Your task to perform on an android device: Searchfor good French restaurants Image 0: 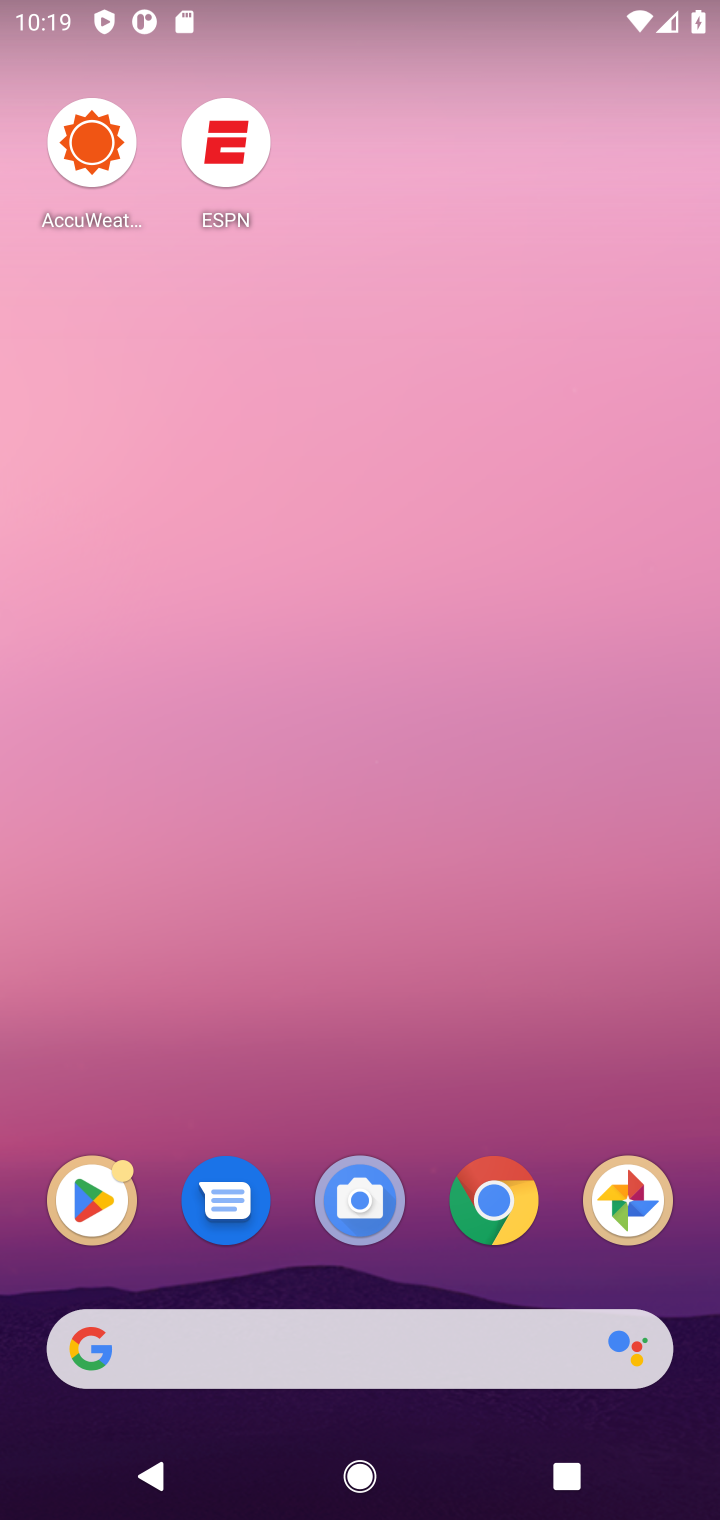
Step 0: click (455, 1215)
Your task to perform on an android device: Searchfor good French restaurants Image 1: 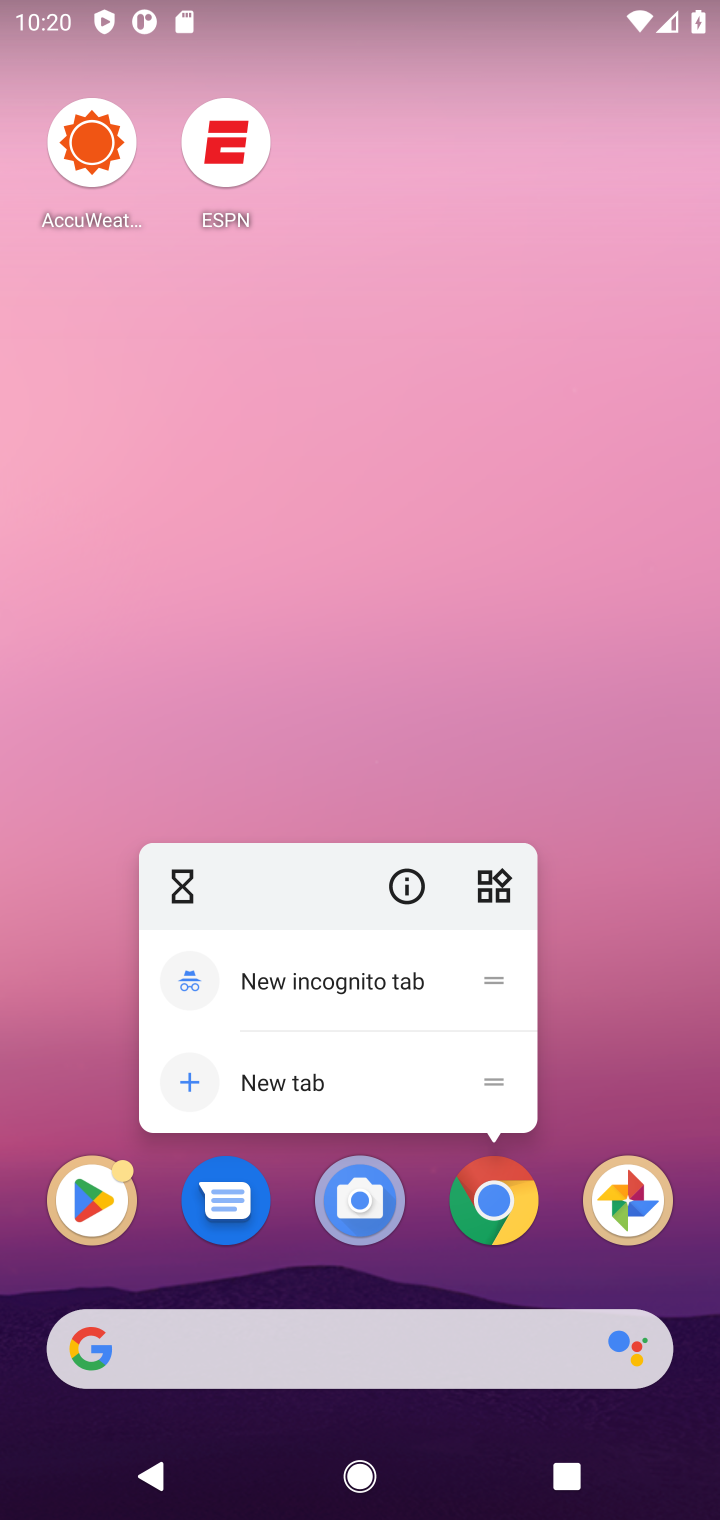
Step 1: click (483, 1191)
Your task to perform on an android device: Searchfor good French restaurants Image 2: 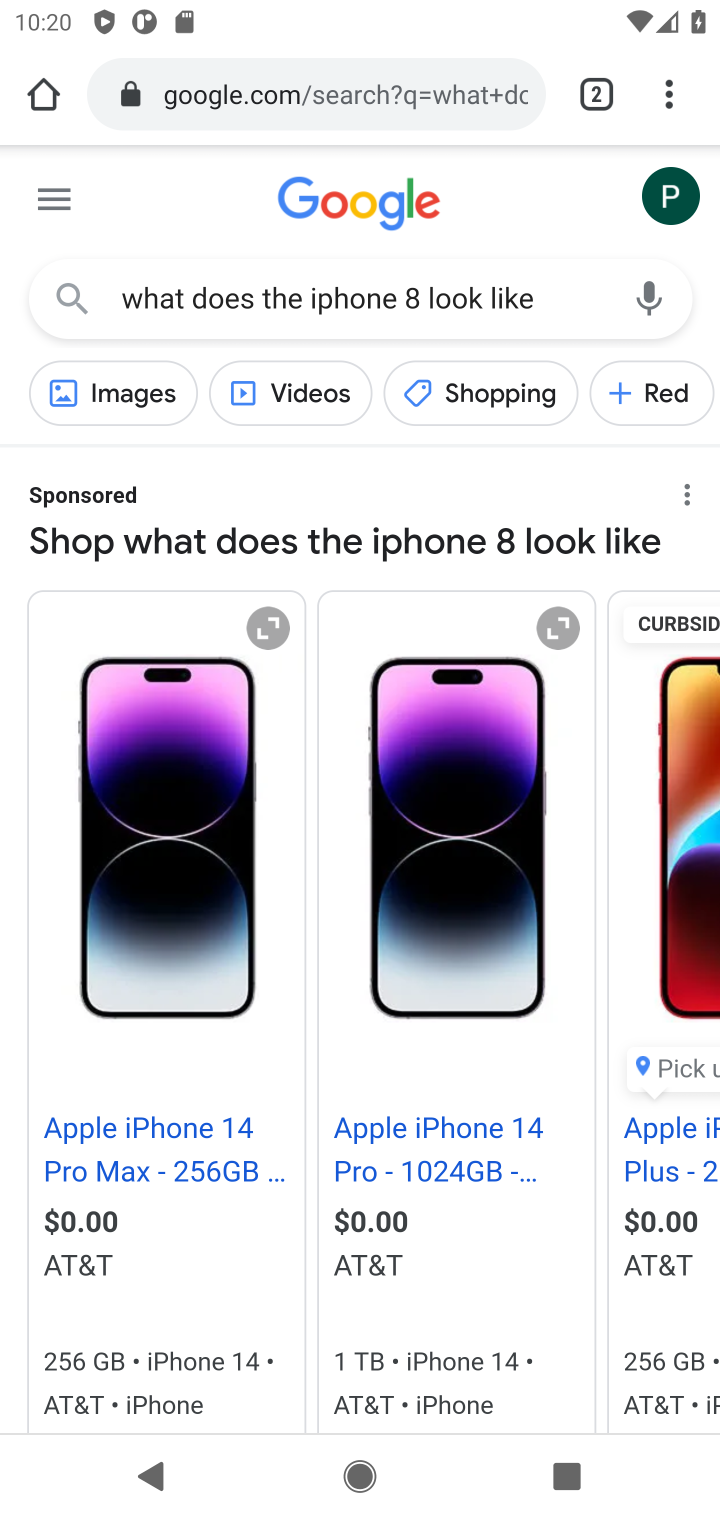
Step 2: click (455, 320)
Your task to perform on an android device: Searchfor good French restaurants Image 3: 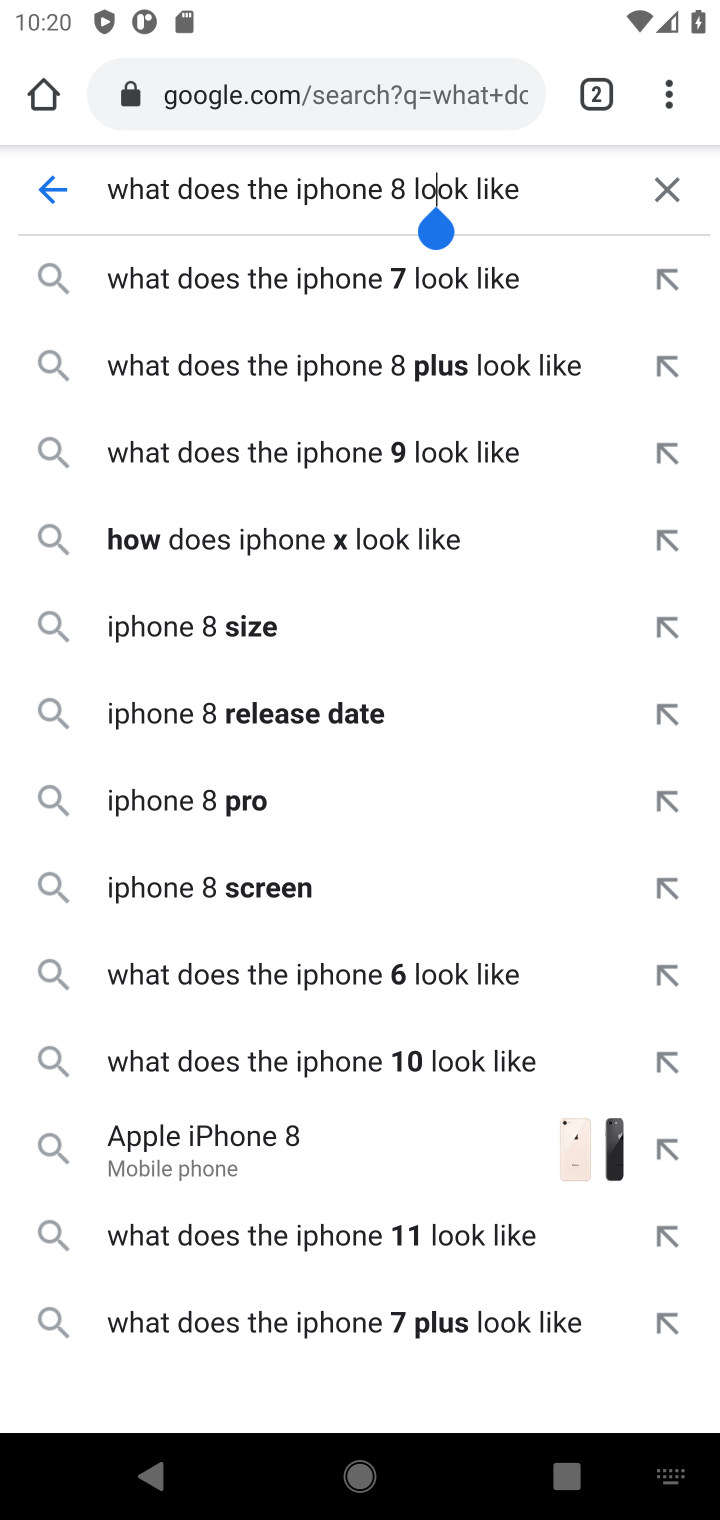
Step 3: click (664, 187)
Your task to perform on an android device: Searchfor good French restaurants Image 4: 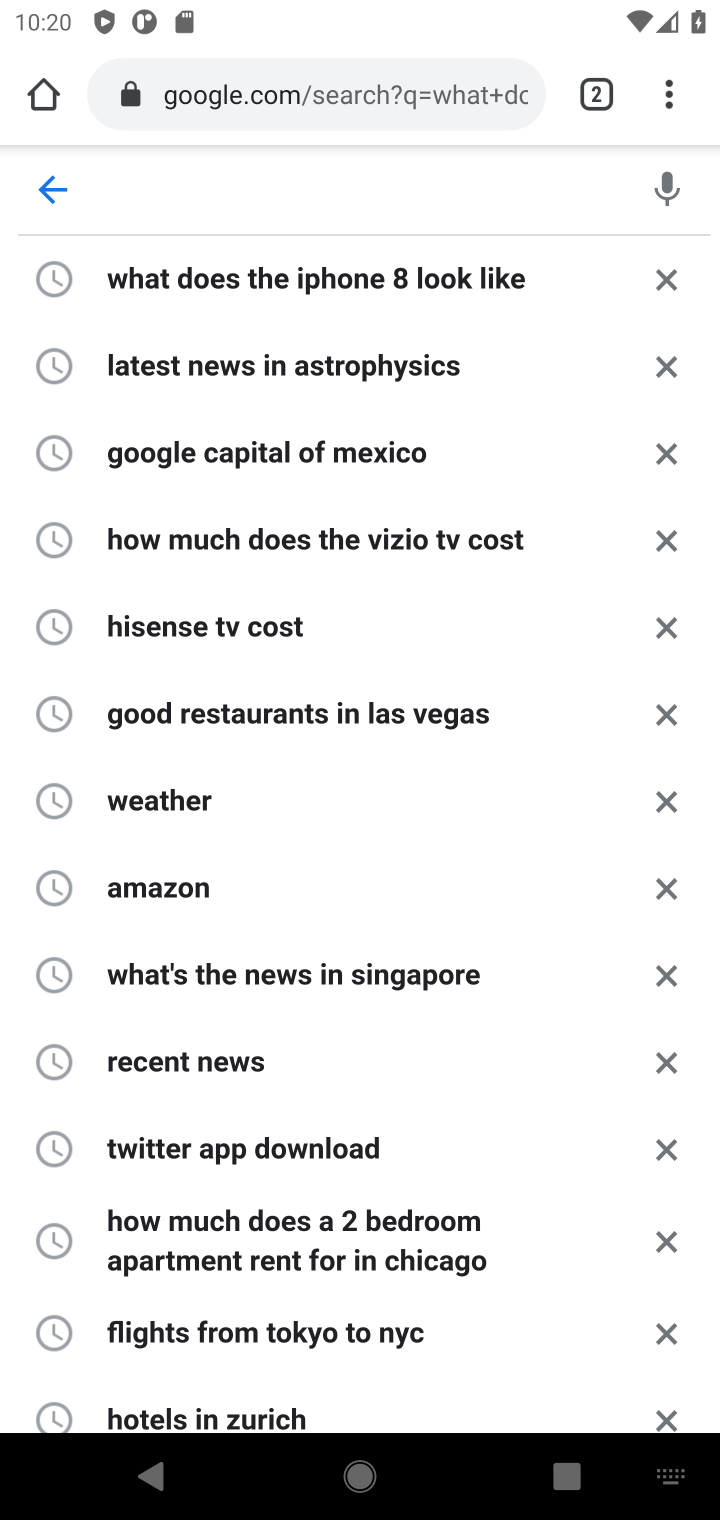
Step 4: click (336, 194)
Your task to perform on an android device: Searchfor good French restaurants Image 5: 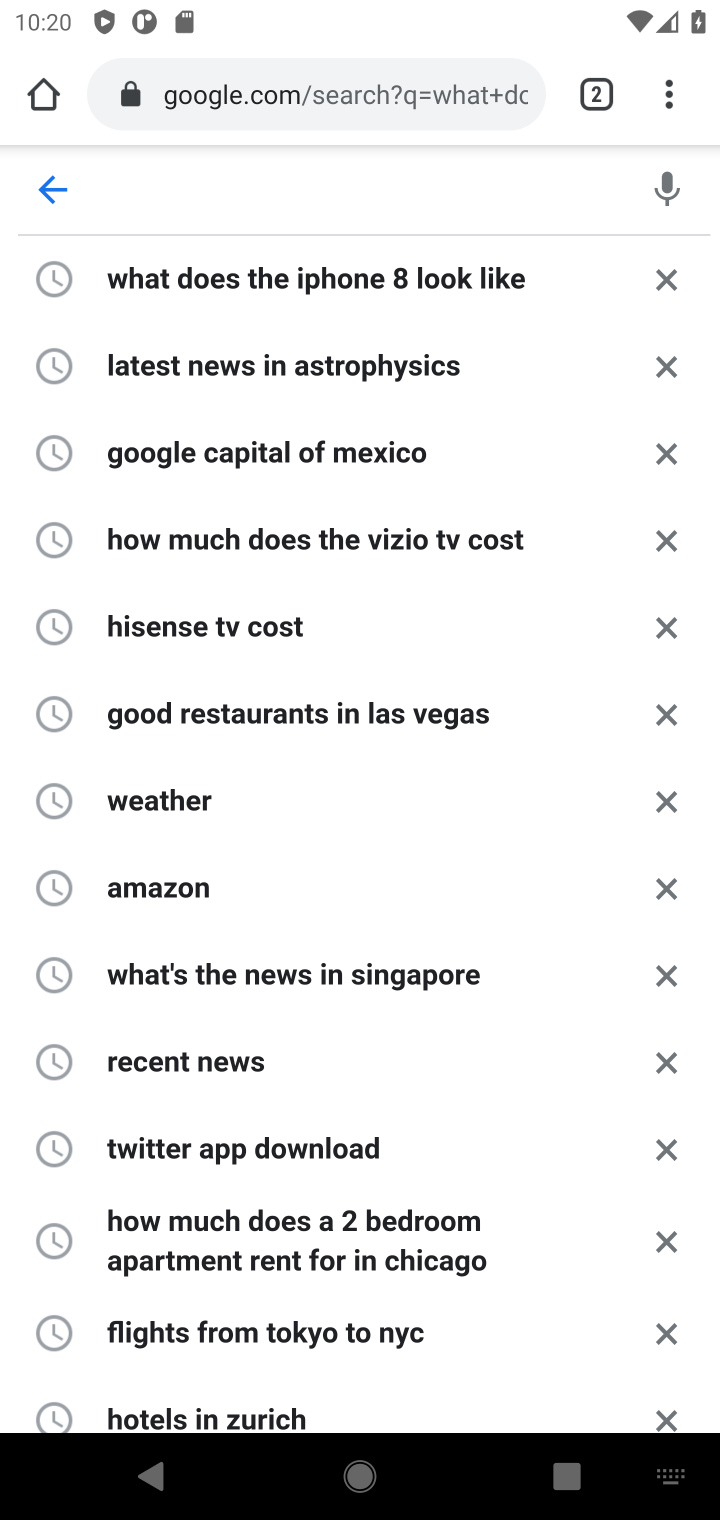
Step 5: type "good french restuarants"
Your task to perform on an android device: Searchfor good French restaurants Image 6: 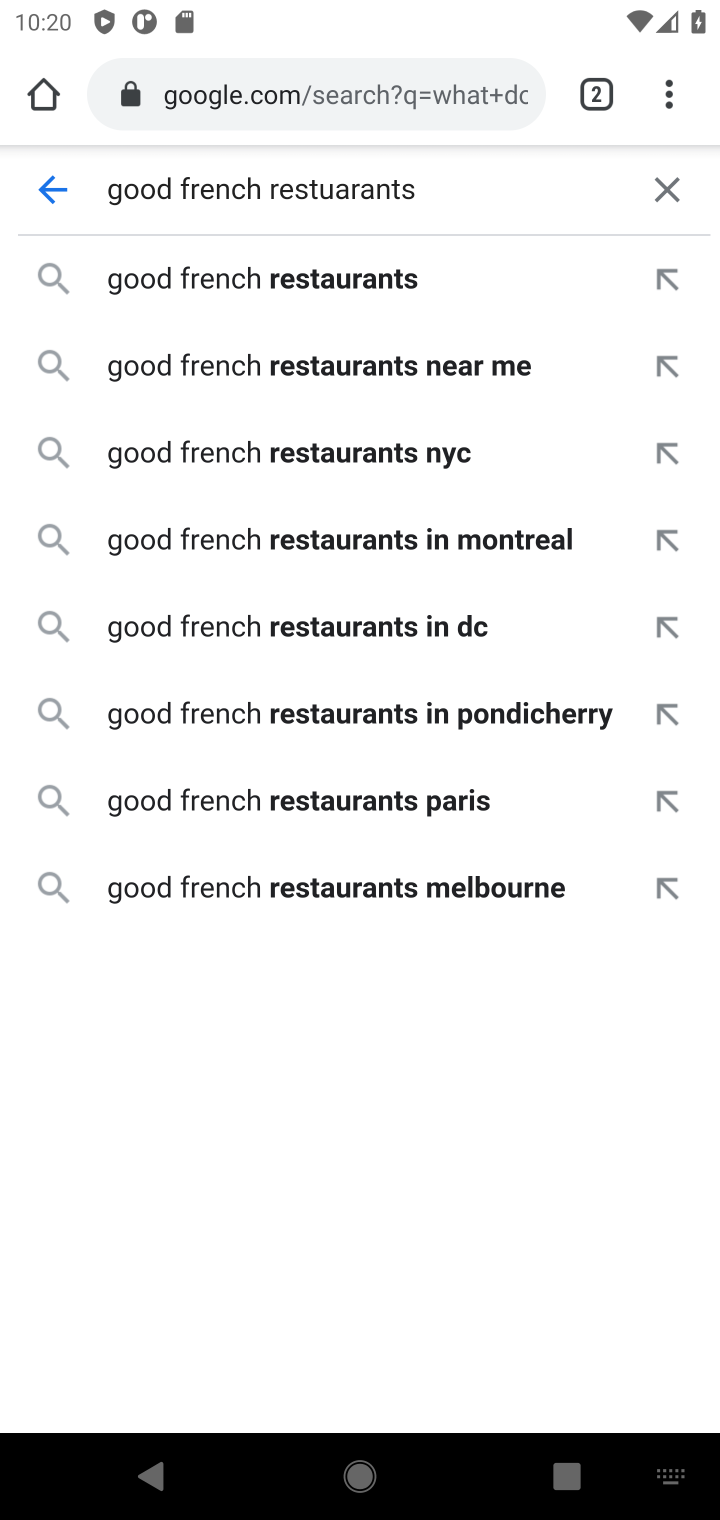
Step 6: click (480, 254)
Your task to perform on an android device: Searchfor good French restaurants Image 7: 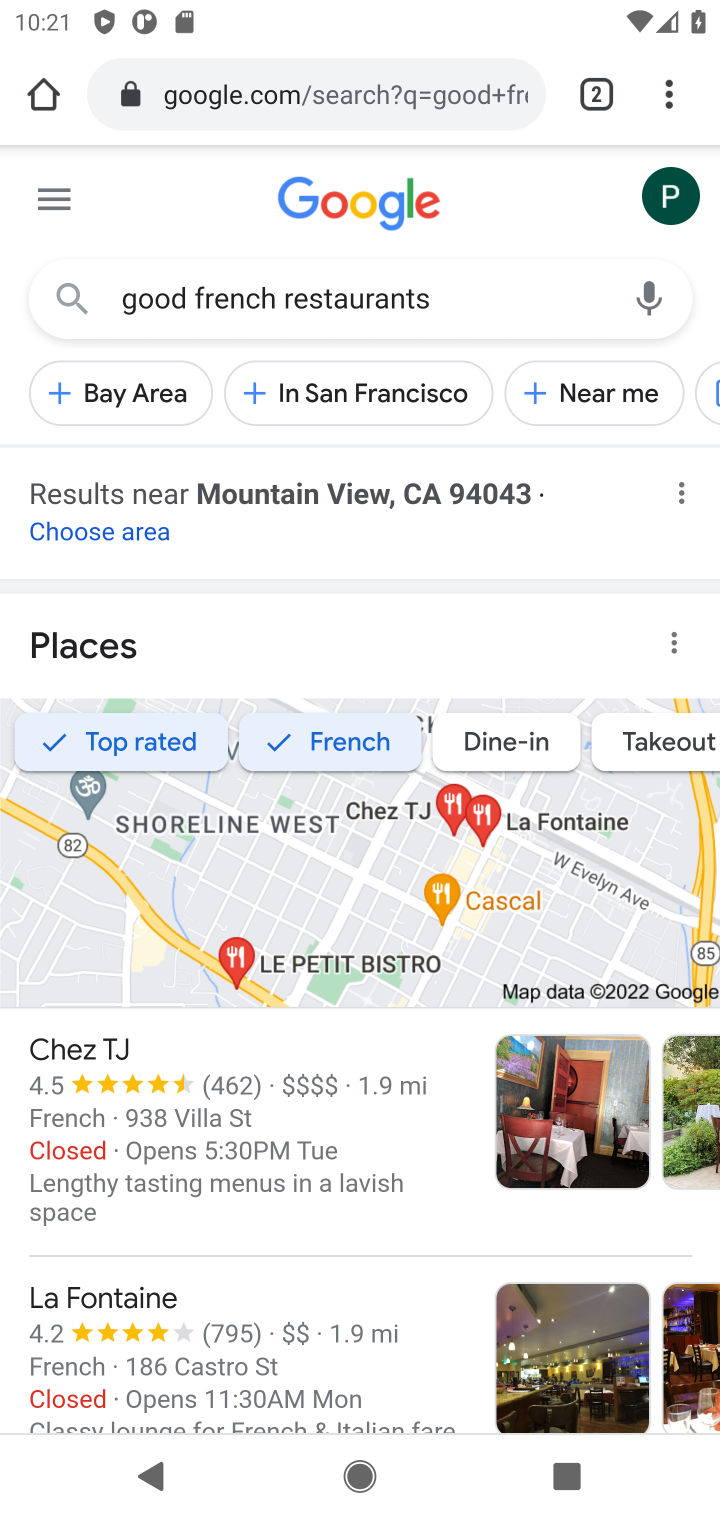
Step 7: task complete